Your task to perform on an android device: Is it going to rain tomorrow? Image 0: 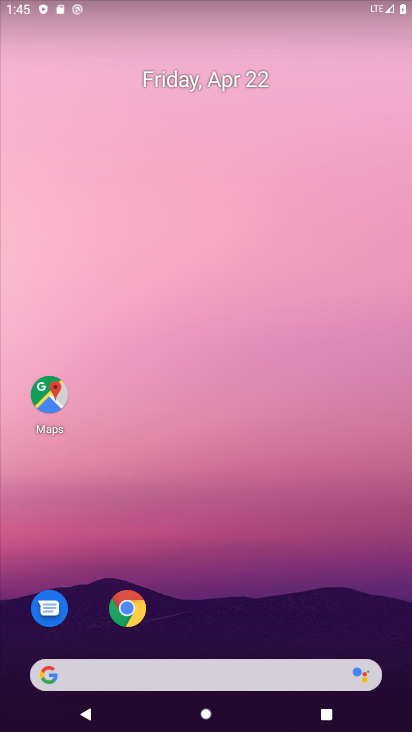
Step 0: drag from (256, 700) to (262, 3)
Your task to perform on an android device: Is it going to rain tomorrow? Image 1: 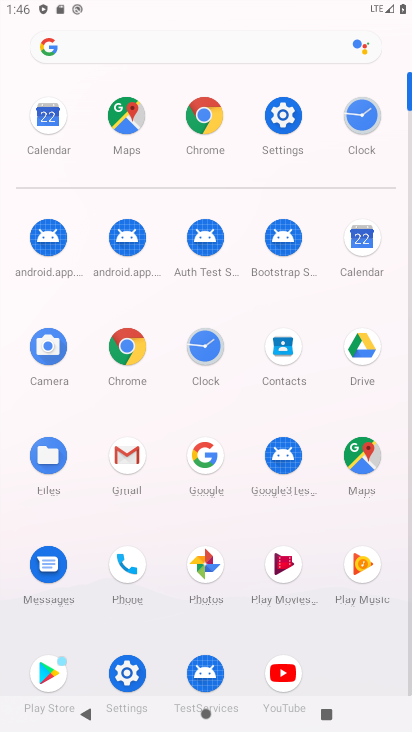
Step 1: click (128, 45)
Your task to perform on an android device: Is it going to rain tomorrow? Image 2: 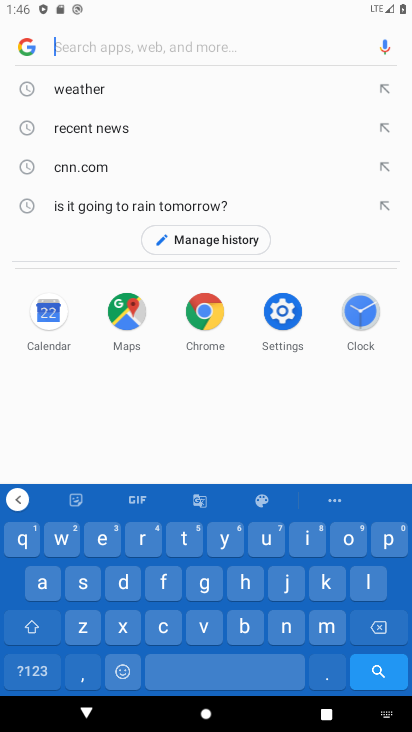
Step 2: click (109, 95)
Your task to perform on an android device: Is it going to rain tomorrow? Image 3: 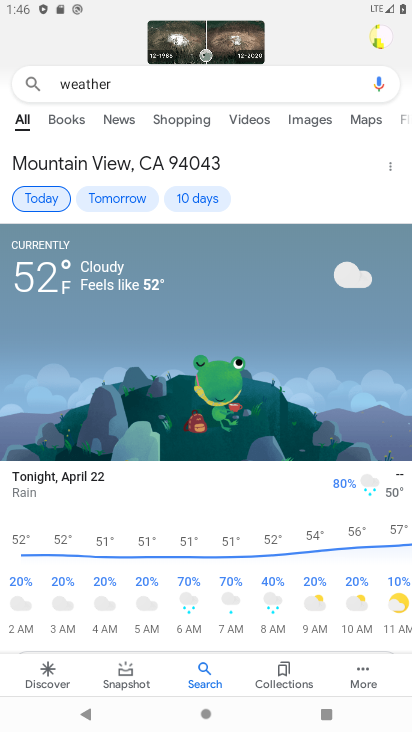
Step 3: click (124, 195)
Your task to perform on an android device: Is it going to rain tomorrow? Image 4: 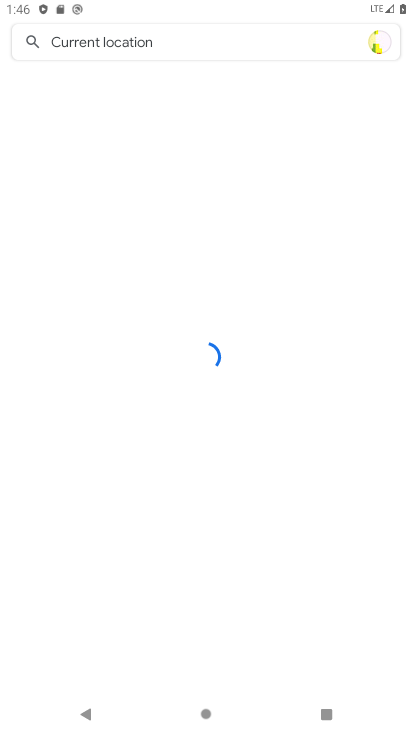
Step 4: click (125, 190)
Your task to perform on an android device: Is it going to rain tomorrow? Image 5: 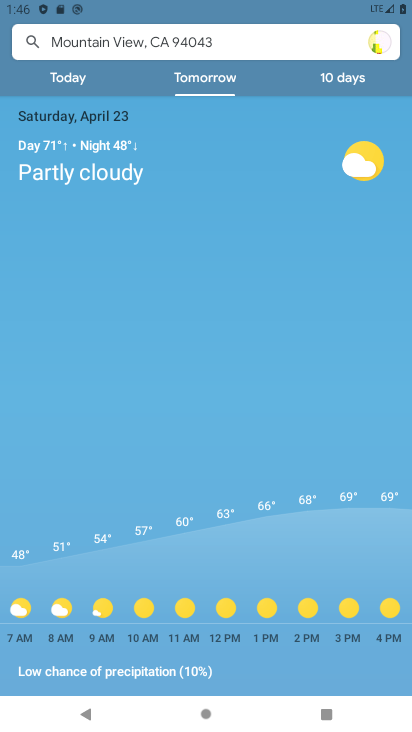
Step 5: task complete